Your task to perform on an android device: Is it going to rain tomorrow? Image 0: 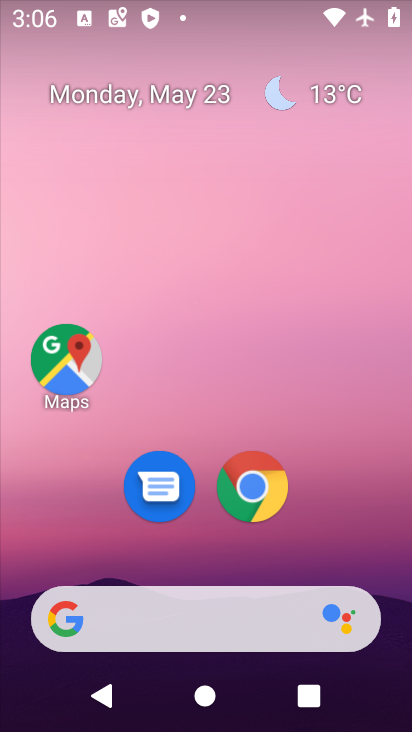
Step 0: click (327, 88)
Your task to perform on an android device: Is it going to rain tomorrow? Image 1: 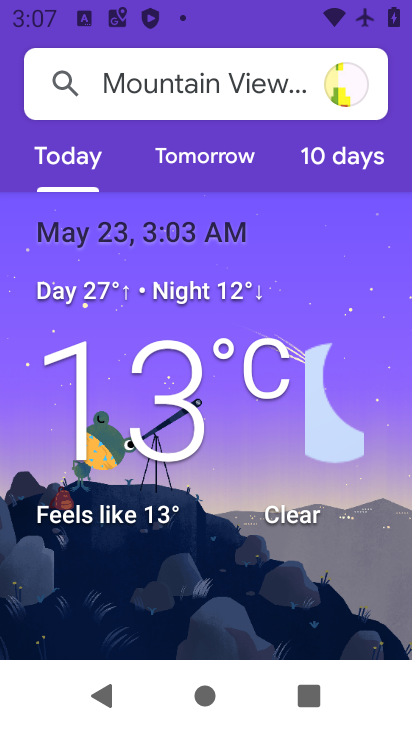
Step 1: click (200, 151)
Your task to perform on an android device: Is it going to rain tomorrow? Image 2: 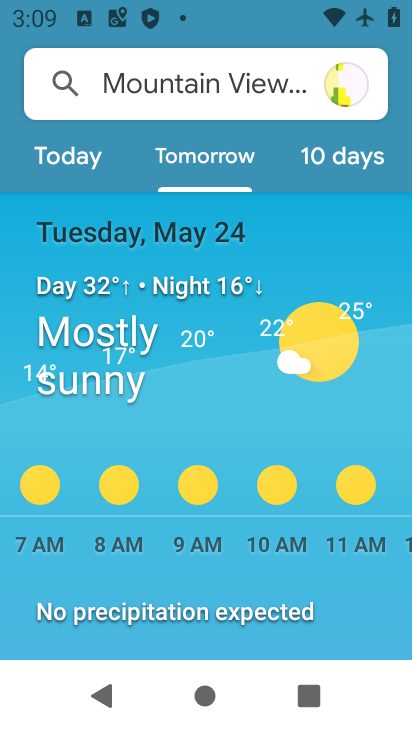
Step 2: task complete